Your task to perform on an android device: Go to Reddit.com Image 0: 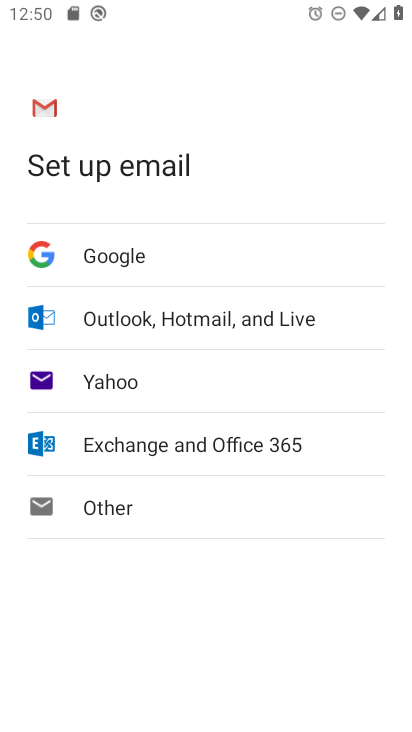
Step 0: press home button
Your task to perform on an android device: Go to Reddit.com Image 1: 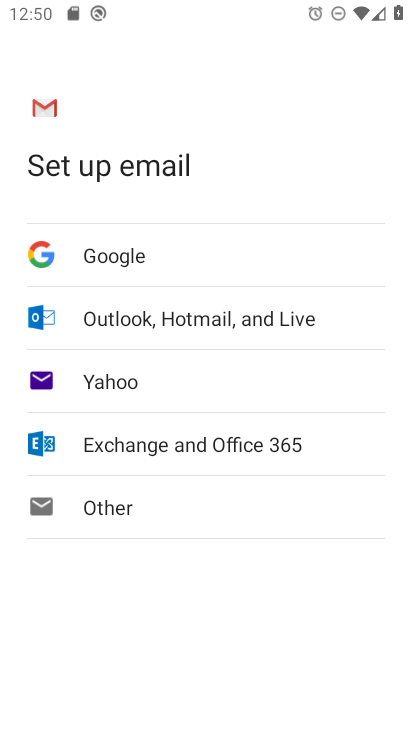
Step 1: press home button
Your task to perform on an android device: Go to Reddit.com Image 2: 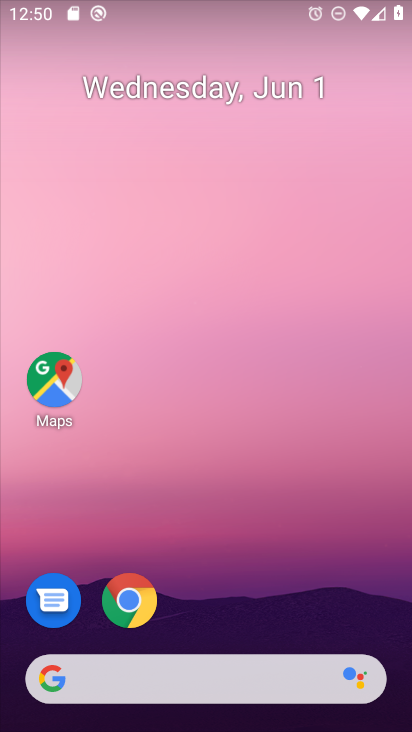
Step 2: click (126, 597)
Your task to perform on an android device: Go to Reddit.com Image 3: 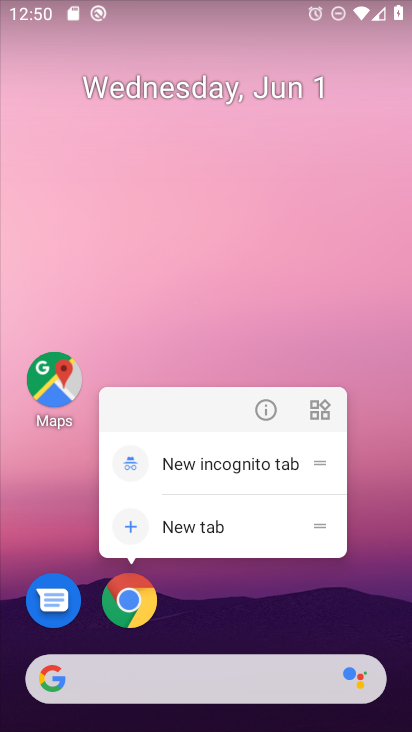
Step 3: click (126, 593)
Your task to perform on an android device: Go to Reddit.com Image 4: 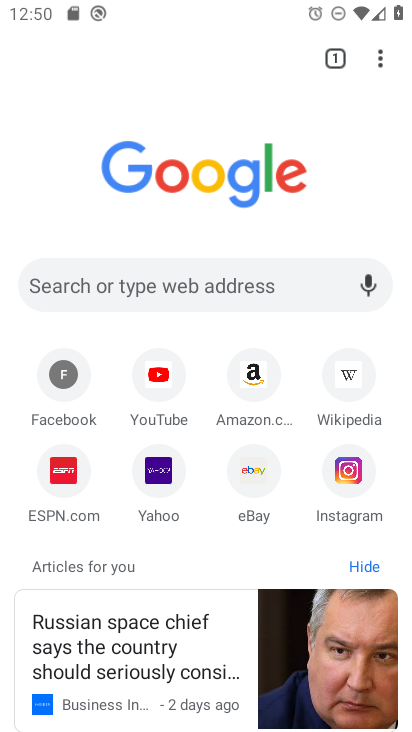
Step 4: click (148, 282)
Your task to perform on an android device: Go to Reddit.com Image 5: 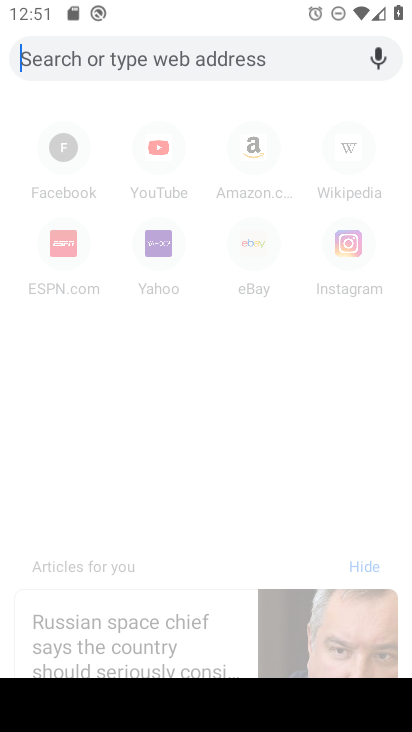
Step 5: type "reddit"
Your task to perform on an android device: Go to Reddit.com Image 6: 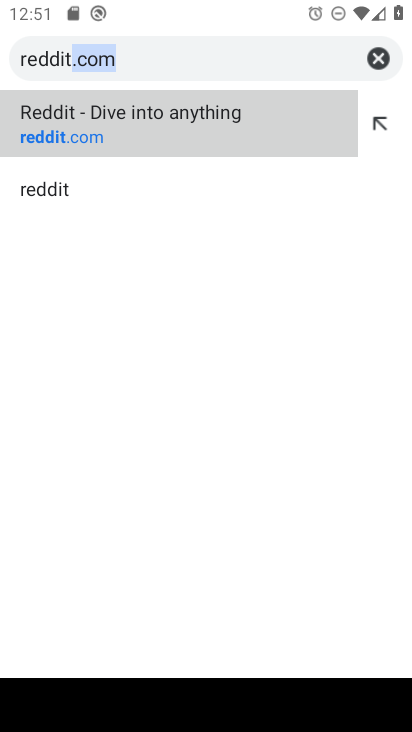
Step 6: click (116, 115)
Your task to perform on an android device: Go to Reddit.com Image 7: 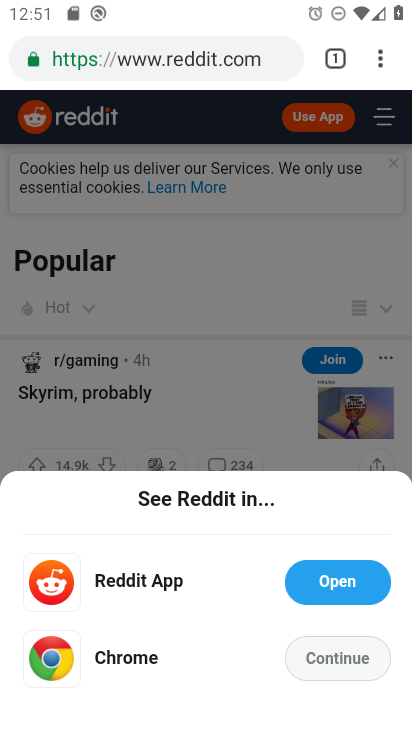
Step 7: click (364, 647)
Your task to perform on an android device: Go to Reddit.com Image 8: 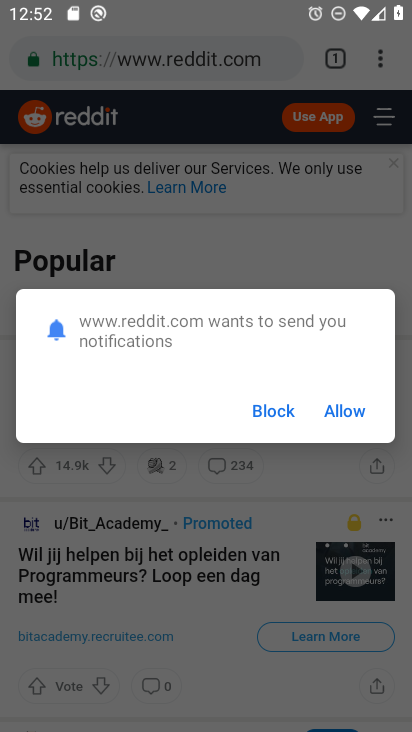
Step 8: click (276, 410)
Your task to perform on an android device: Go to Reddit.com Image 9: 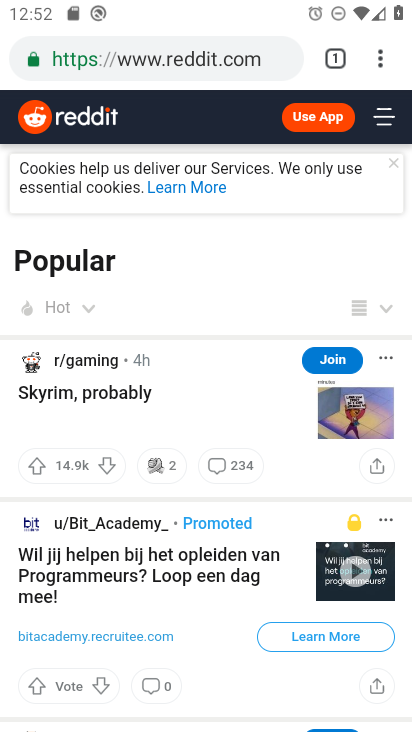
Step 9: task complete